Your task to perform on an android device: change alarm snooze length Image 0: 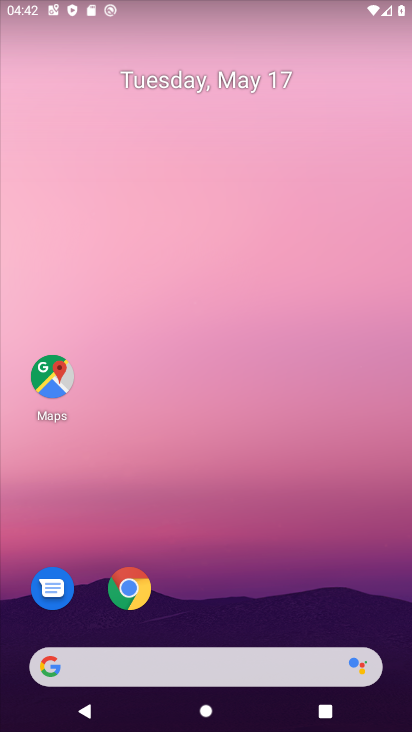
Step 0: drag from (260, 584) to (199, 157)
Your task to perform on an android device: change alarm snooze length Image 1: 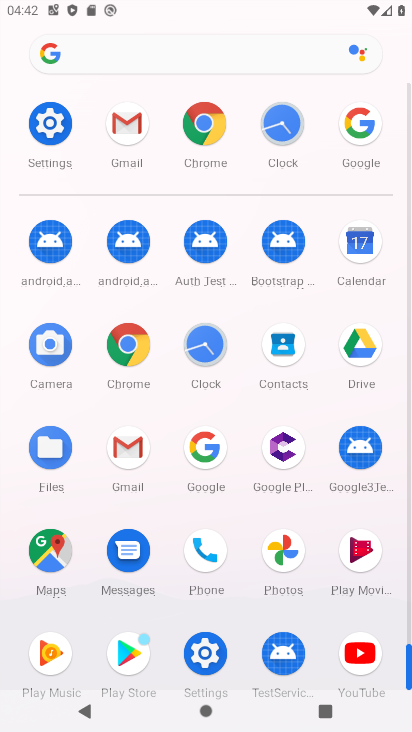
Step 1: click (283, 122)
Your task to perform on an android device: change alarm snooze length Image 2: 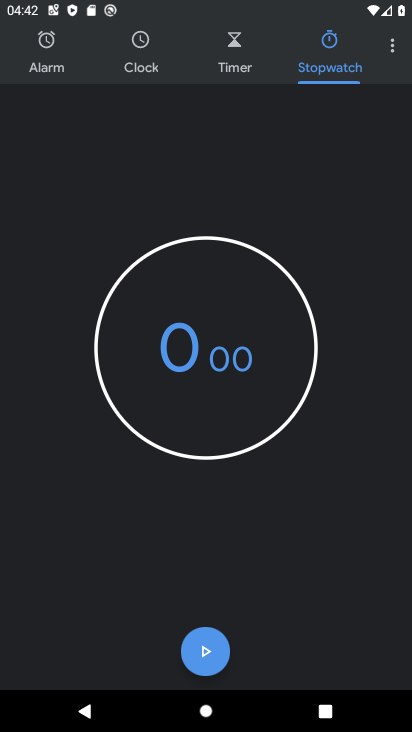
Step 2: click (392, 45)
Your task to perform on an android device: change alarm snooze length Image 3: 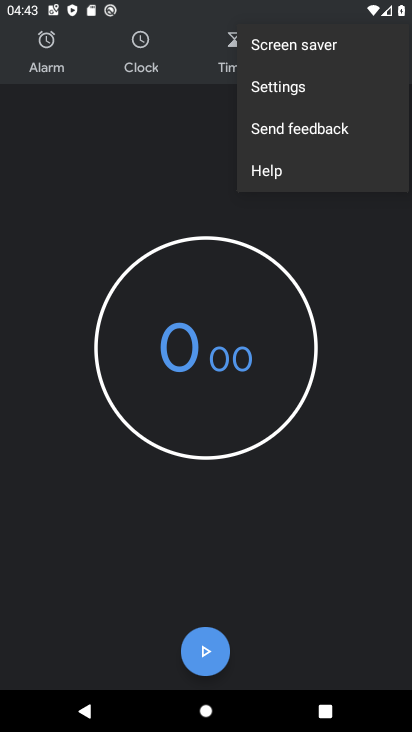
Step 3: click (304, 85)
Your task to perform on an android device: change alarm snooze length Image 4: 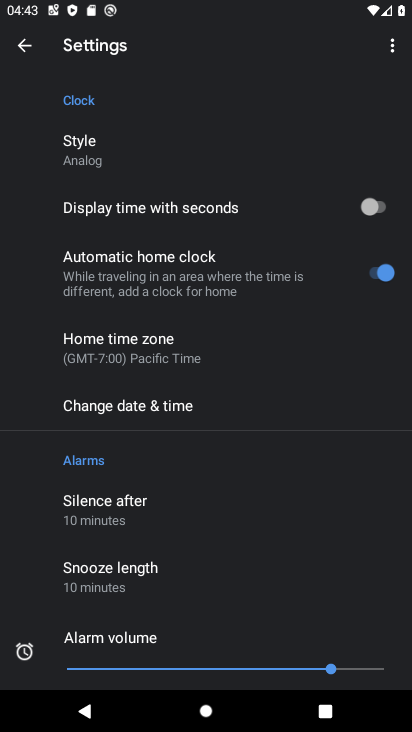
Step 4: click (128, 572)
Your task to perform on an android device: change alarm snooze length Image 5: 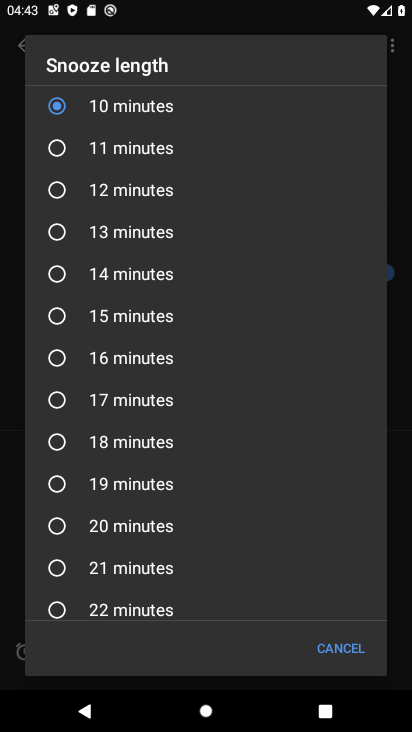
Step 5: click (58, 441)
Your task to perform on an android device: change alarm snooze length Image 6: 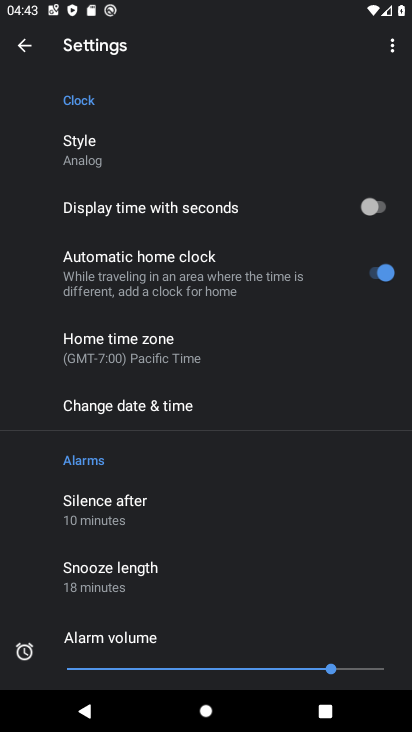
Step 6: task complete